Your task to perform on an android device: Open calendar and show me the fourth week of next month Image 0: 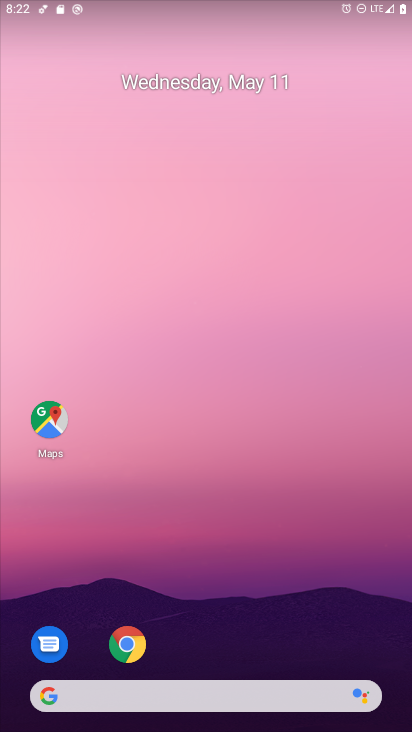
Step 0: drag from (296, 597) to (186, 152)
Your task to perform on an android device: Open calendar and show me the fourth week of next month Image 1: 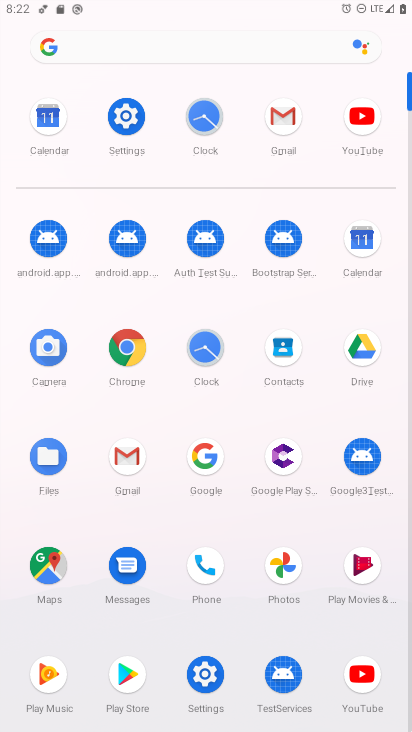
Step 1: click (44, 120)
Your task to perform on an android device: Open calendar and show me the fourth week of next month Image 2: 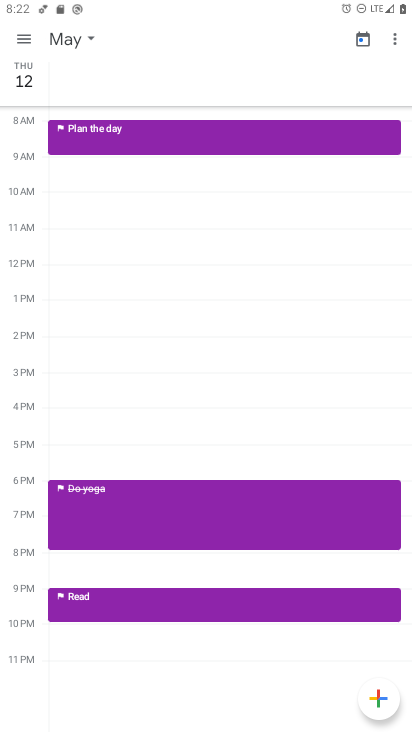
Step 2: click (17, 30)
Your task to perform on an android device: Open calendar and show me the fourth week of next month Image 3: 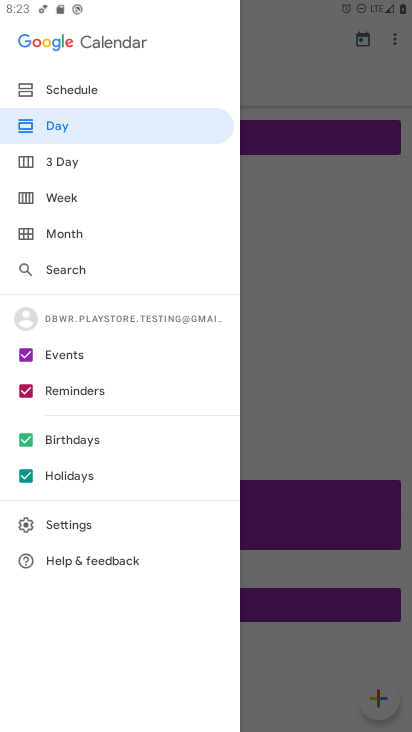
Step 3: click (62, 194)
Your task to perform on an android device: Open calendar and show me the fourth week of next month Image 4: 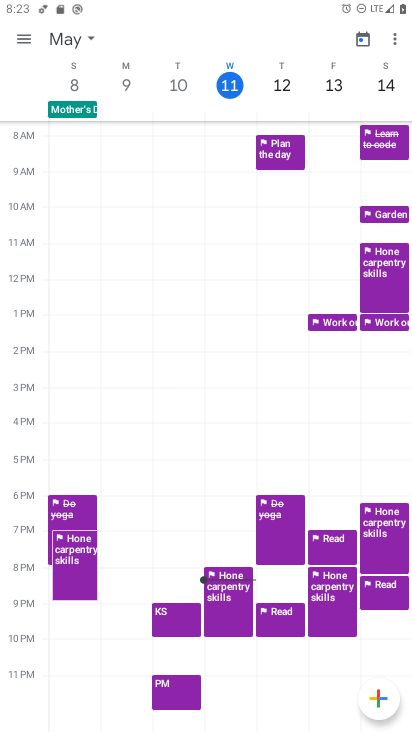
Step 4: click (92, 41)
Your task to perform on an android device: Open calendar and show me the fourth week of next month Image 5: 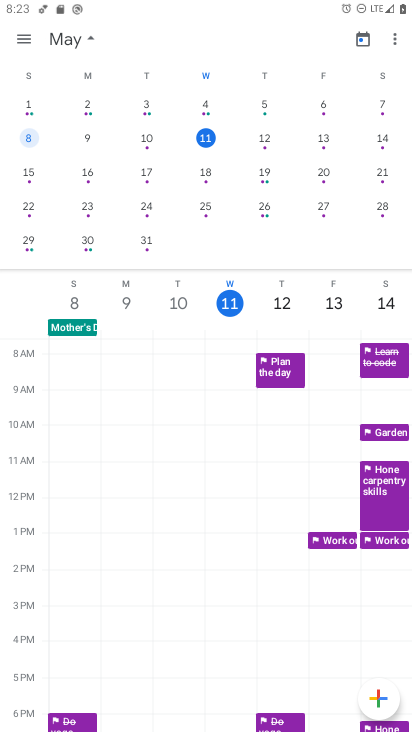
Step 5: drag from (364, 175) to (4, 188)
Your task to perform on an android device: Open calendar and show me the fourth week of next month Image 6: 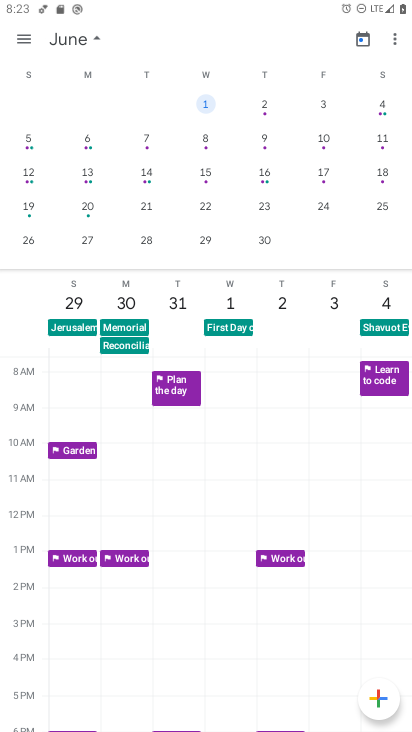
Step 6: click (146, 205)
Your task to perform on an android device: Open calendar and show me the fourth week of next month Image 7: 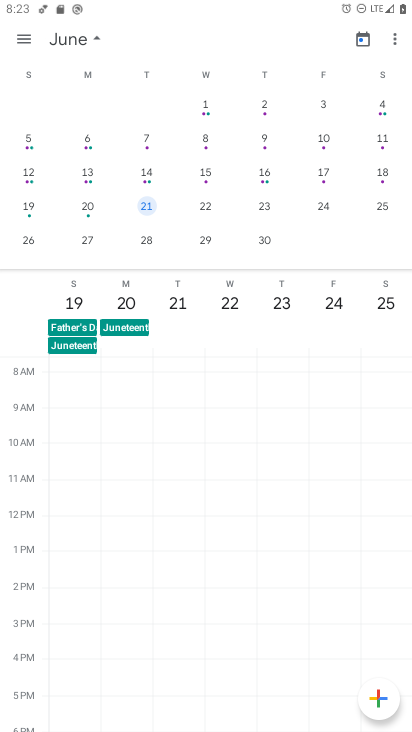
Step 7: task complete